Your task to perform on an android device: Turn off the flashlight Image 0: 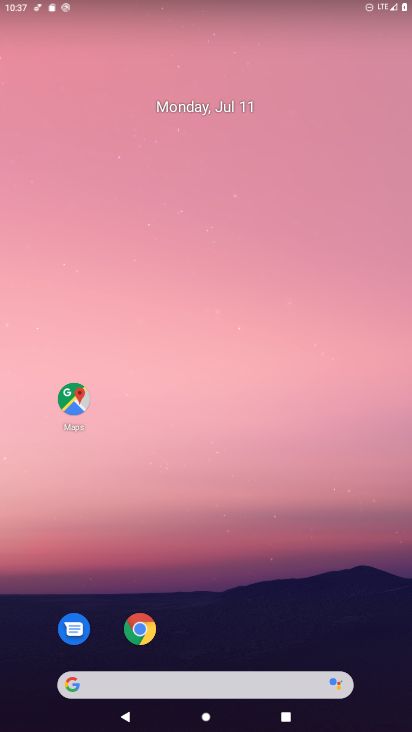
Step 0: drag from (331, 15) to (333, 700)
Your task to perform on an android device: Turn off the flashlight Image 1: 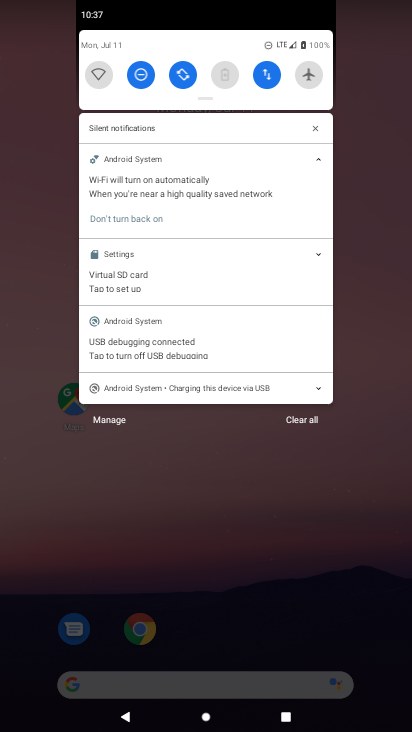
Step 1: task complete